Your task to perform on an android device: Search for Mexican restaurants on Maps Image 0: 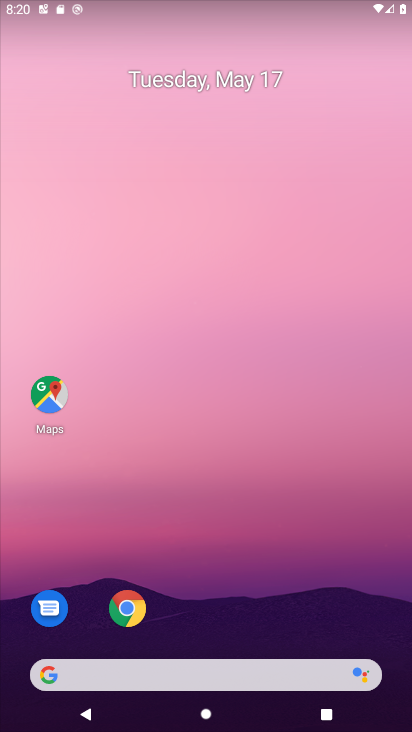
Step 0: drag from (370, 606) to (362, 215)
Your task to perform on an android device: Search for Mexican restaurants on Maps Image 1: 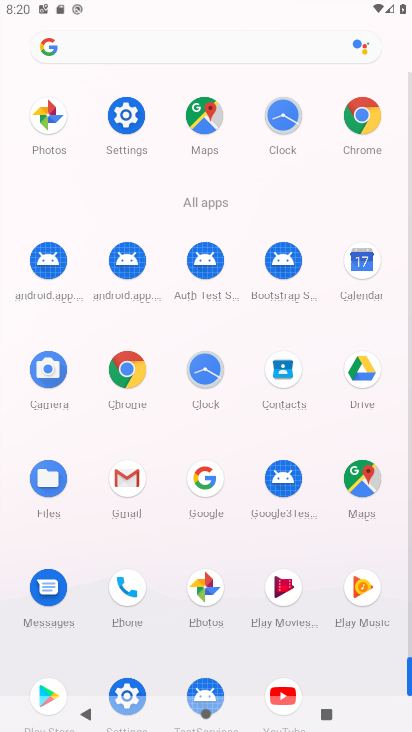
Step 1: click (366, 482)
Your task to perform on an android device: Search for Mexican restaurants on Maps Image 2: 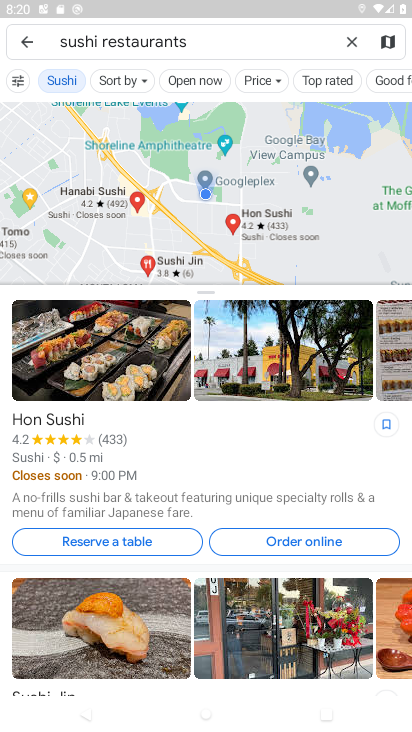
Step 2: click (348, 38)
Your task to perform on an android device: Search for Mexican restaurants on Maps Image 3: 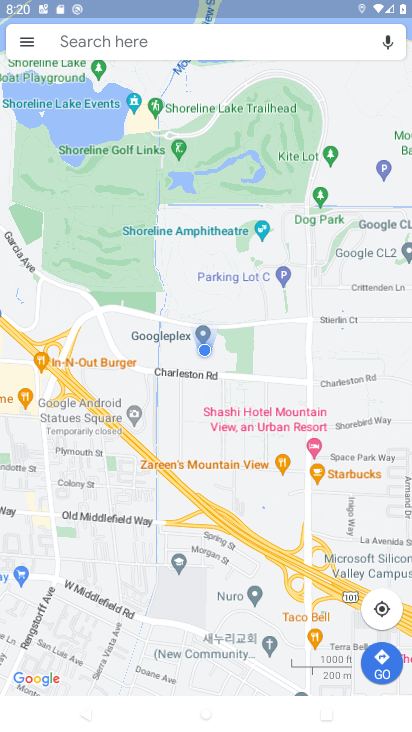
Step 3: click (195, 35)
Your task to perform on an android device: Search for Mexican restaurants on Maps Image 4: 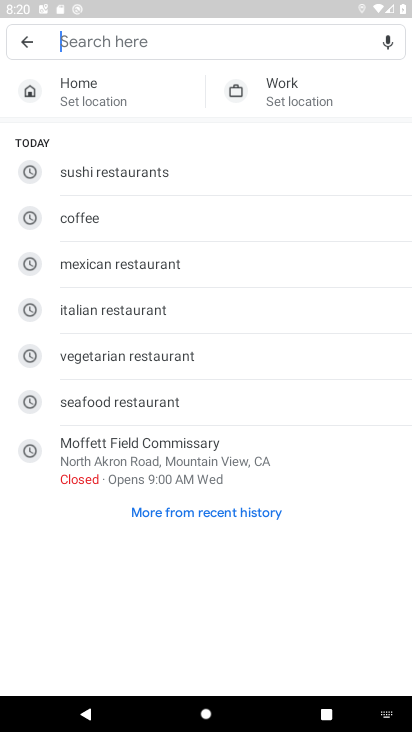
Step 4: type "mexican restaurants"
Your task to perform on an android device: Search for Mexican restaurants on Maps Image 5: 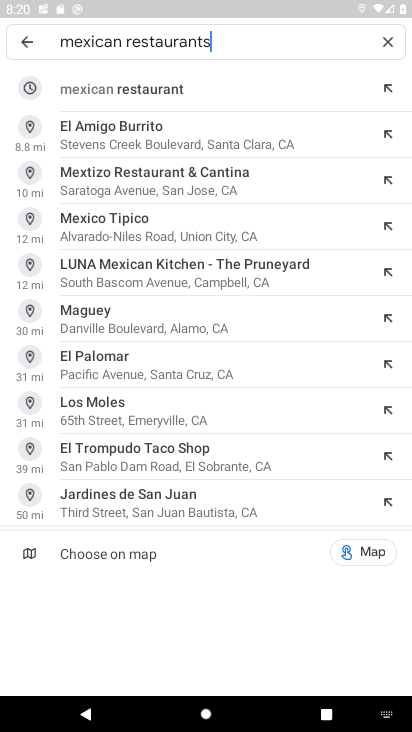
Step 5: click (268, 93)
Your task to perform on an android device: Search for Mexican restaurants on Maps Image 6: 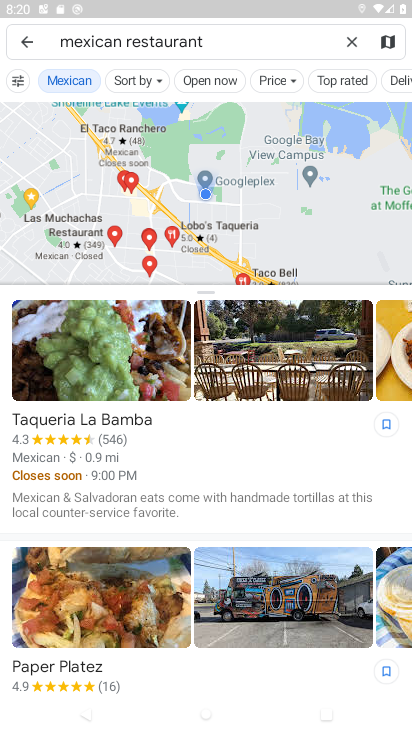
Step 6: task complete